Your task to perform on an android device: set the stopwatch Image 0: 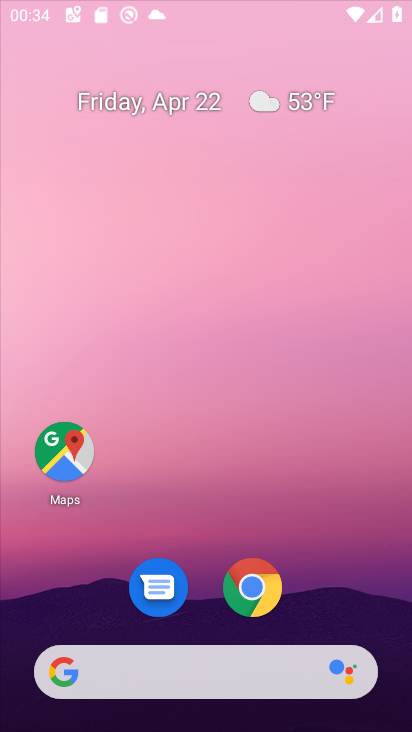
Step 0: click (255, 598)
Your task to perform on an android device: set the stopwatch Image 1: 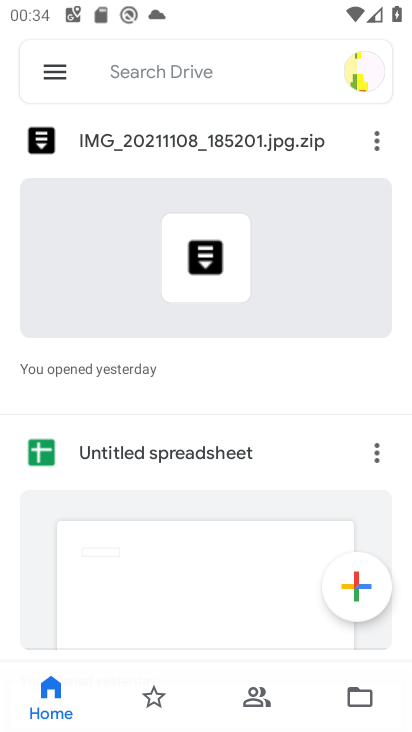
Step 1: press home button
Your task to perform on an android device: set the stopwatch Image 2: 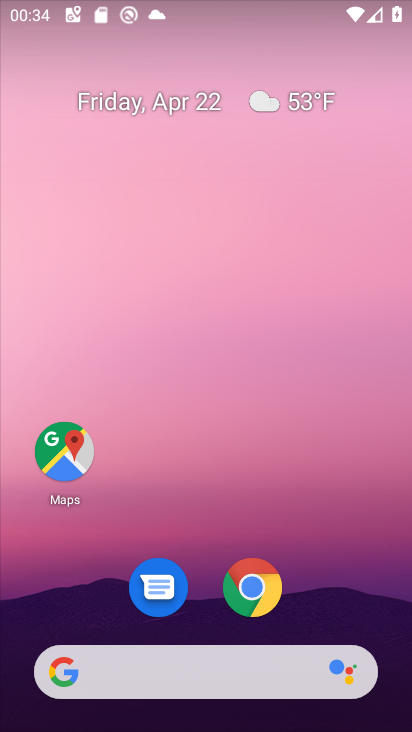
Step 2: drag from (304, 560) to (316, 153)
Your task to perform on an android device: set the stopwatch Image 3: 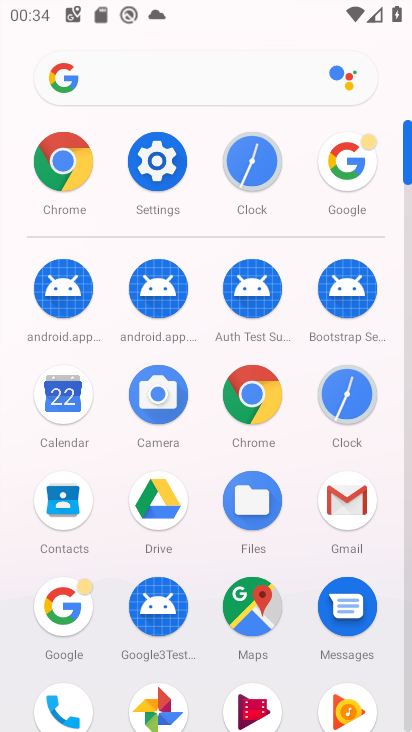
Step 3: click (349, 399)
Your task to perform on an android device: set the stopwatch Image 4: 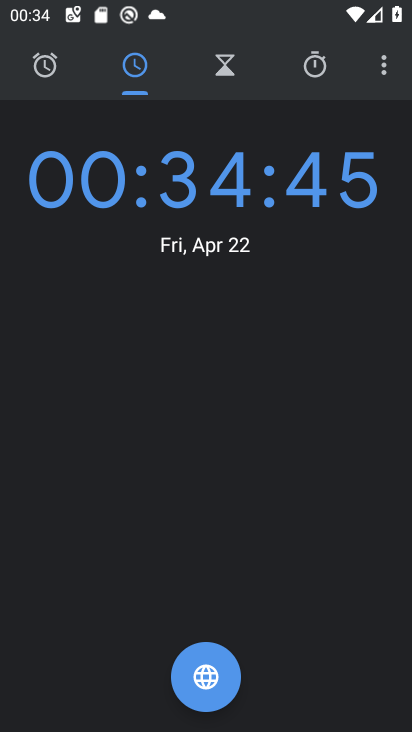
Step 4: click (317, 66)
Your task to perform on an android device: set the stopwatch Image 5: 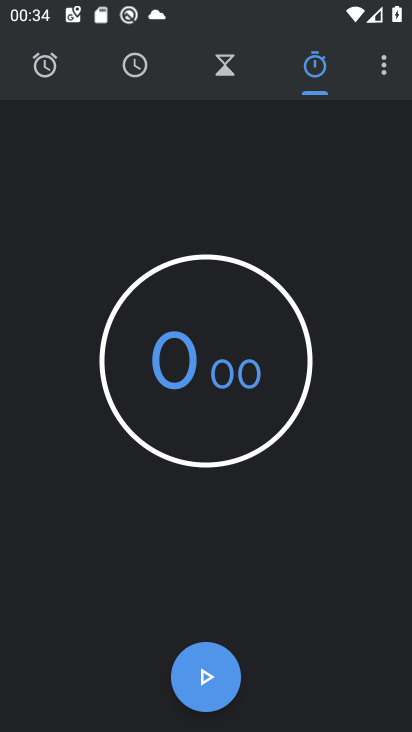
Step 5: task complete